Your task to perform on an android device: Google the capital of Peru Image 0: 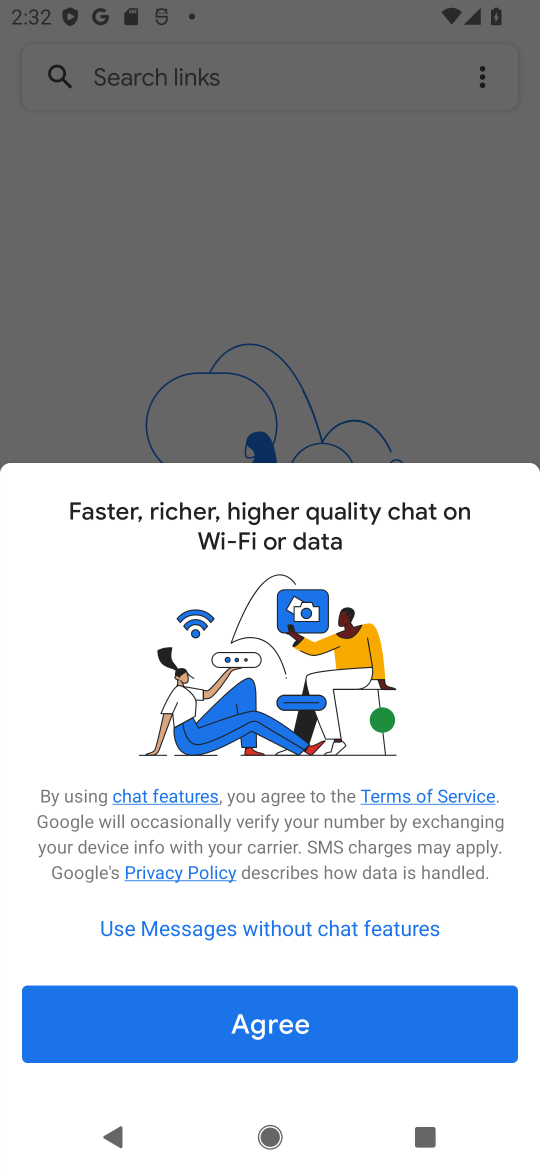
Step 0: press back button
Your task to perform on an android device: Google the capital of Peru Image 1: 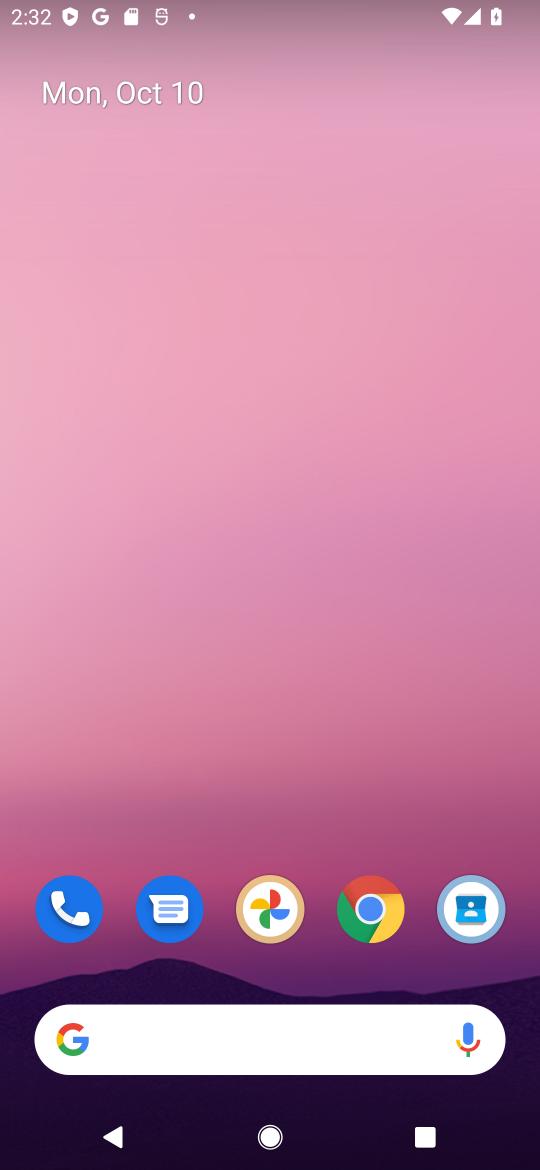
Step 1: click (360, 912)
Your task to perform on an android device: Google the capital of Peru Image 2: 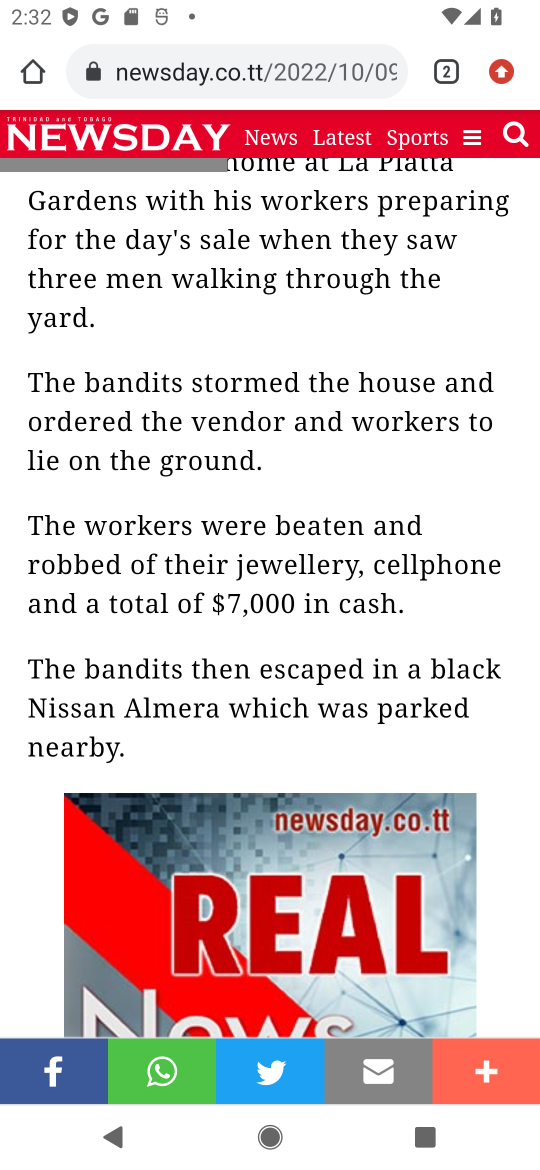
Step 2: click (205, 49)
Your task to perform on an android device: Google the capital of Peru Image 3: 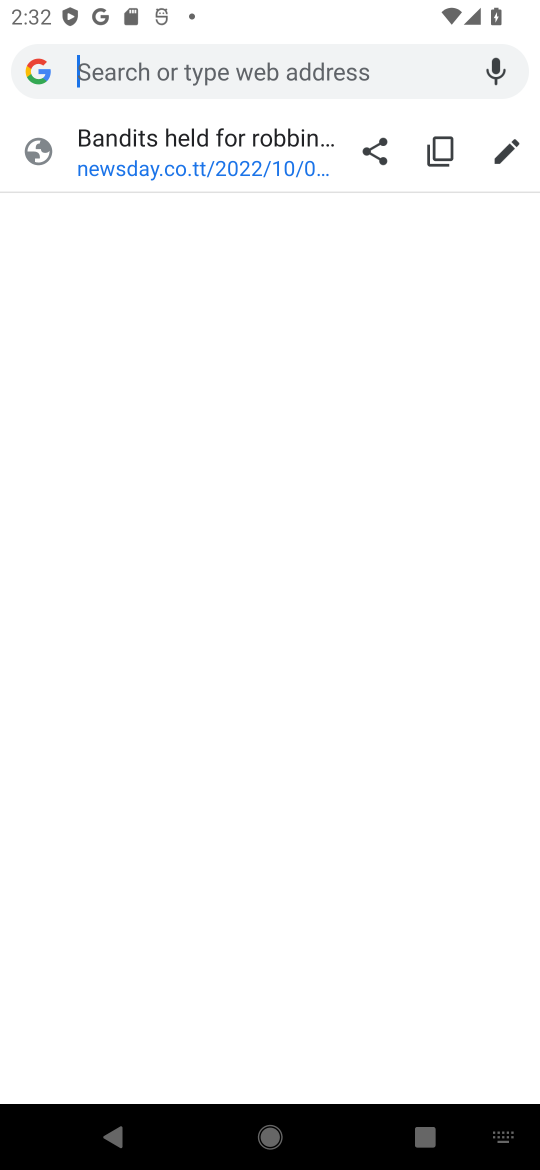
Step 3: type "capital of Peru"
Your task to perform on an android device: Google the capital of Peru Image 4: 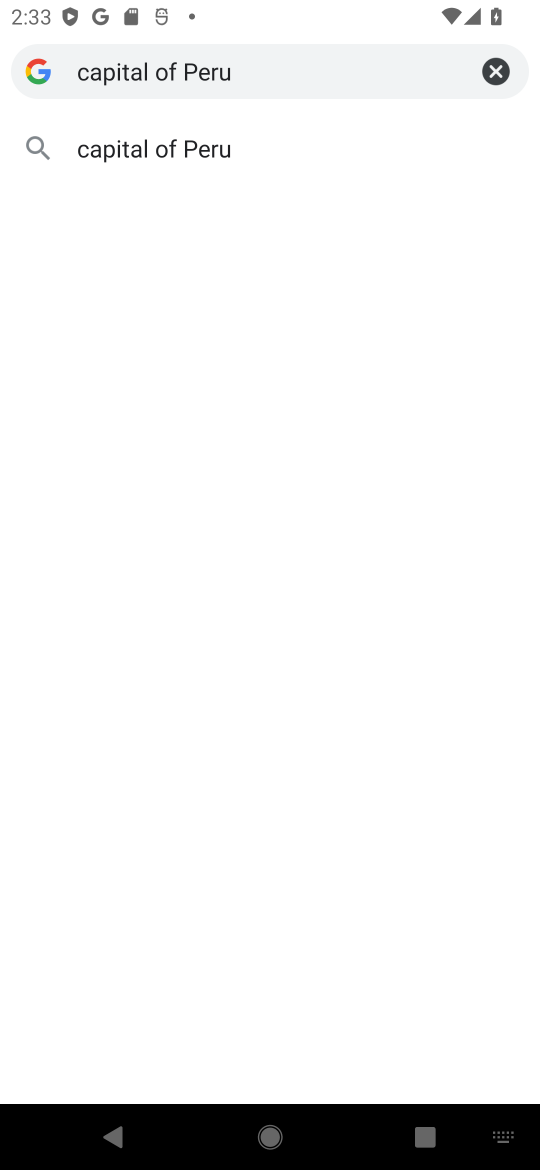
Step 4: click (107, 146)
Your task to perform on an android device: Google the capital of Peru Image 5: 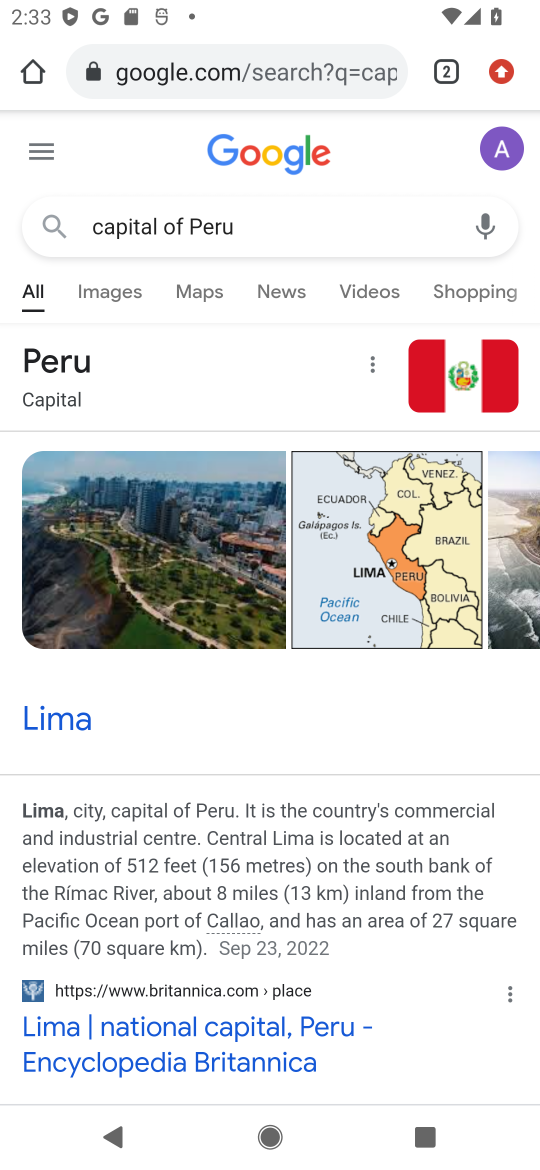
Step 5: click (204, 672)
Your task to perform on an android device: Google the capital of Peru Image 6: 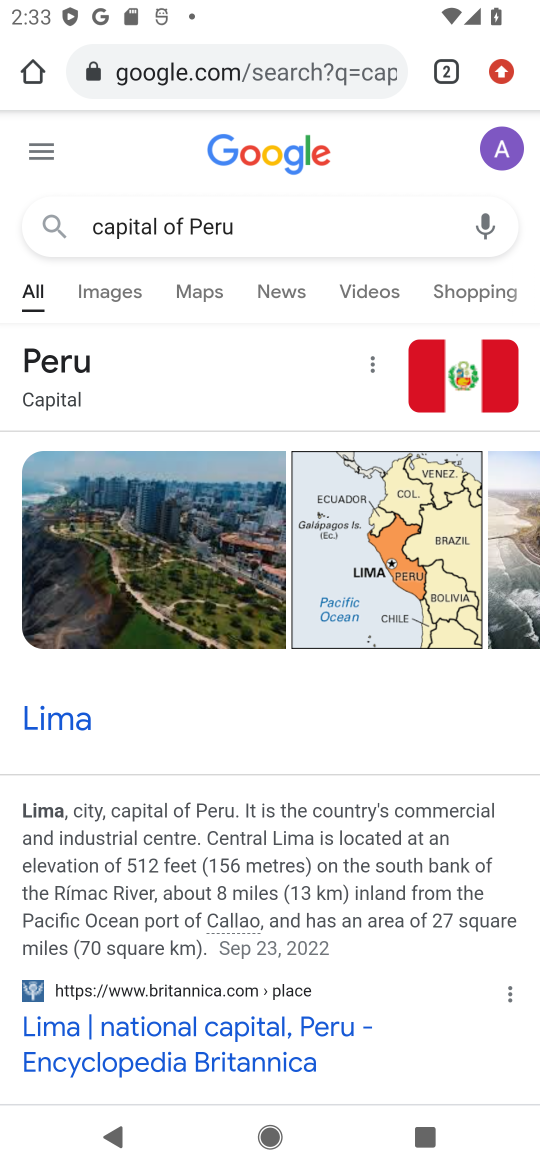
Step 6: task complete